Your task to perform on an android device: Open notification settings Image 0: 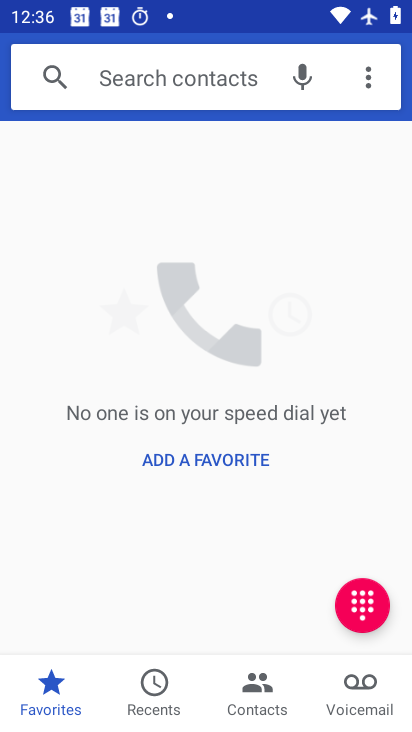
Step 0: press home button
Your task to perform on an android device: Open notification settings Image 1: 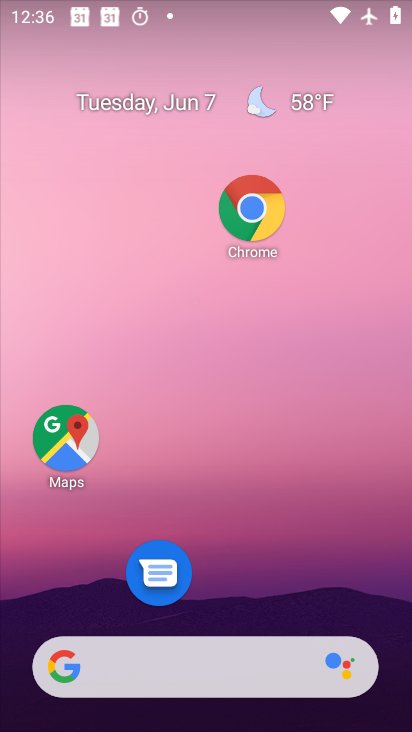
Step 1: drag from (230, 583) to (249, 174)
Your task to perform on an android device: Open notification settings Image 2: 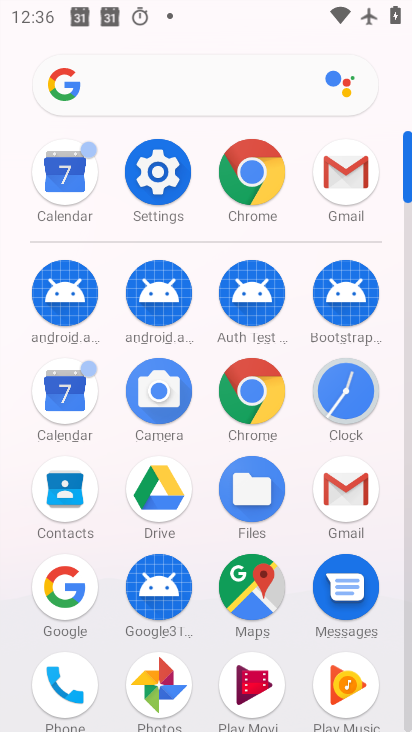
Step 2: click (145, 185)
Your task to perform on an android device: Open notification settings Image 3: 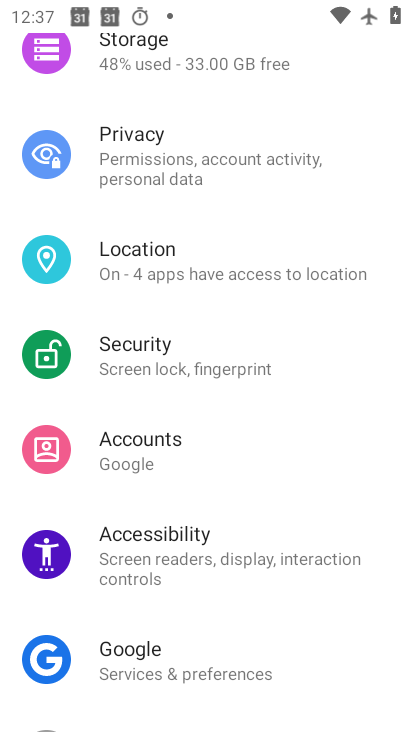
Step 3: drag from (204, 614) to (212, 376)
Your task to perform on an android device: Open notification settings Image 4: 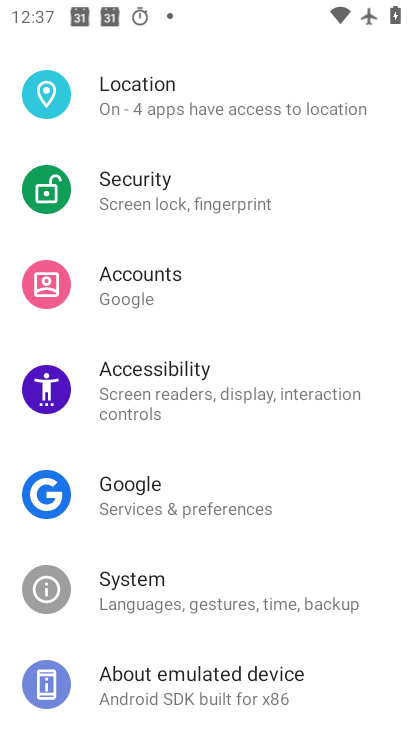
Step 4: drag from (224, 544) to (242, 238)
Your task to perform on an android device: Open notification settings Image 5: 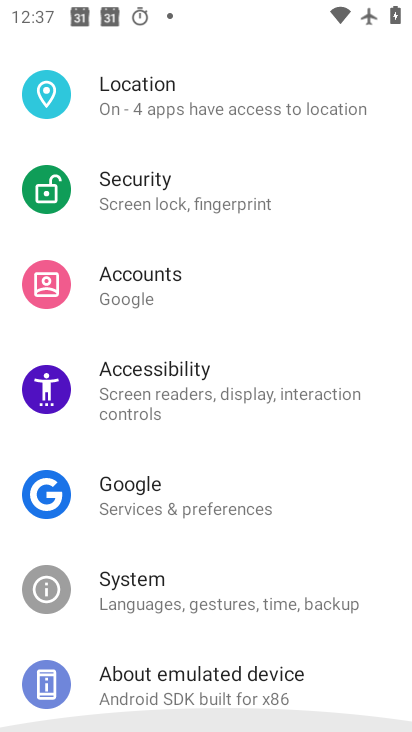
Step 5: drag from (245, 283) to (261, 559)
Your task to perform on an android device: Open notification settings Image 6: 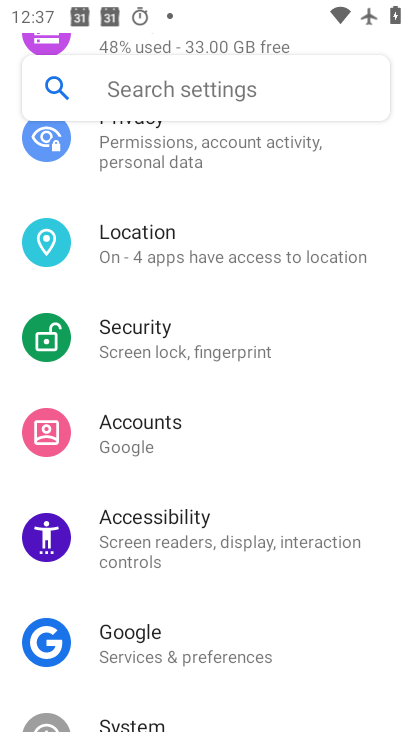
Step 6: drag from (210, 245) to (210, 507)
Your task to perform on an android device: Open notification settings Image 7: 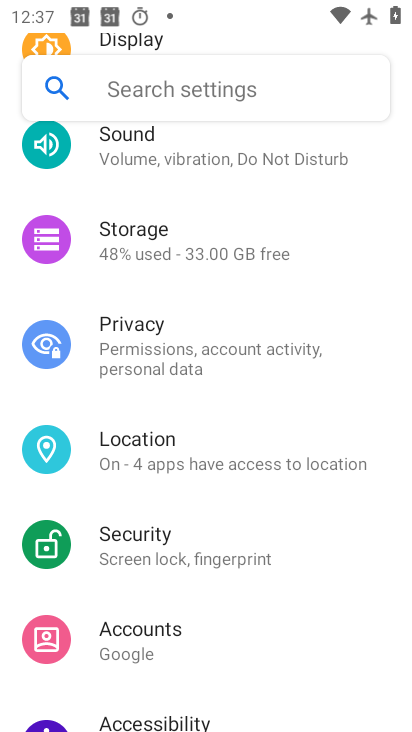
Step 7: drag from (219, 276) to (219, 453)
Your task to perform on an android device: Open notification settings Image 8: 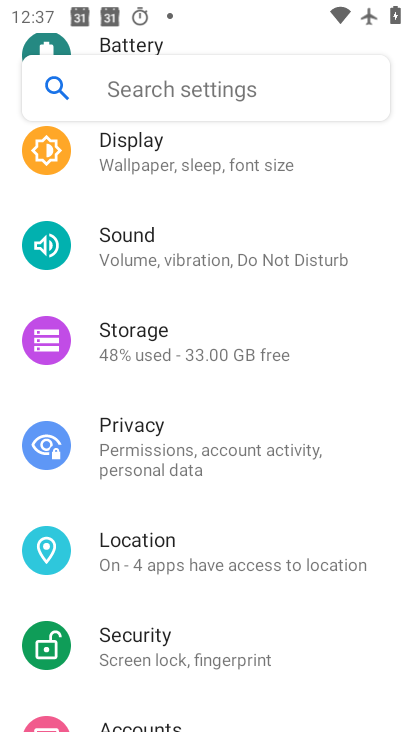
Step 8: drag from (194, 258) to (214, 494)
Your task to perform on an android device: Open notification settings Image 9: 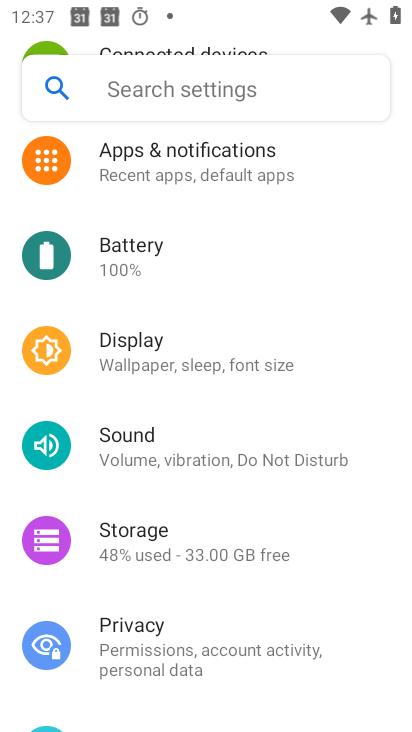
Step 9: click (229, 158)
Your task to perform on an android device: Open notification settings Image 10: 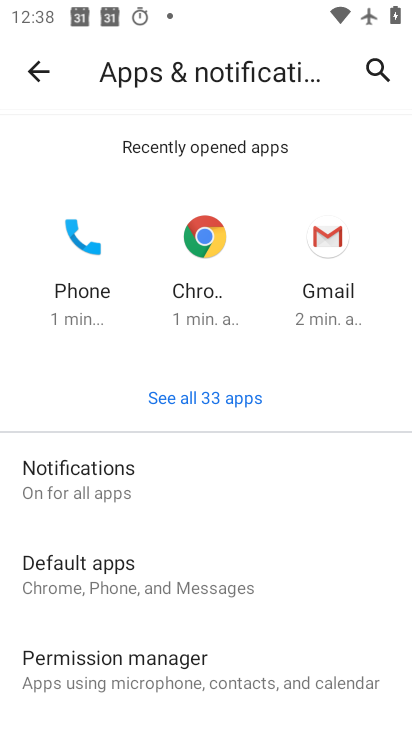
Step 10: click (156, 489)
Your task to perform on an android device: Open notification settings Image 11: 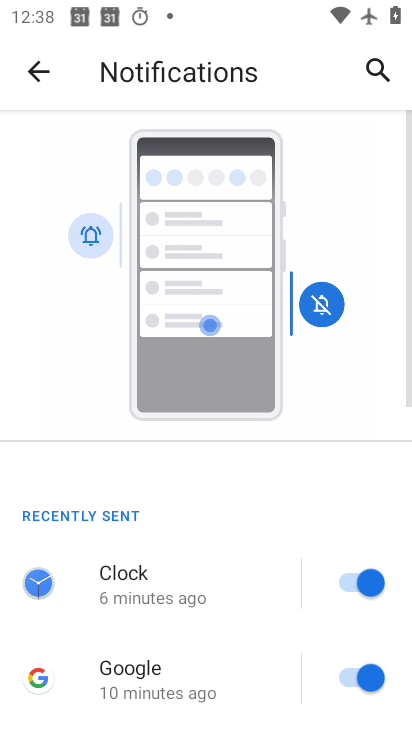
Step 11: task complete